Your task to perform on an android device: toggle priority inbox in the gmail app Image 0: 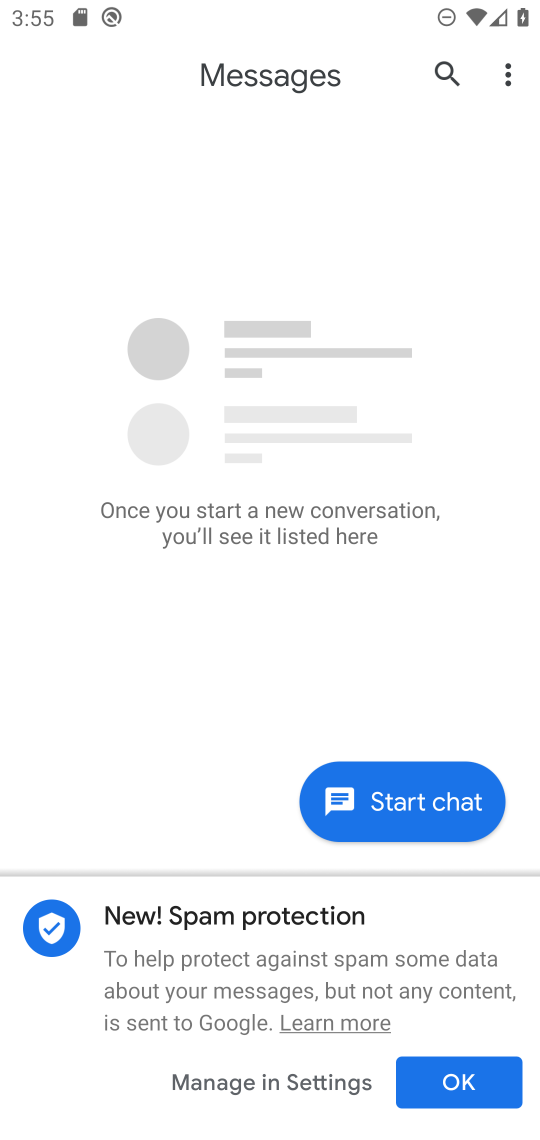
Step 0: press home button
Your task to perform on an android device: toggle priority inbox in the gmail app Image 1: 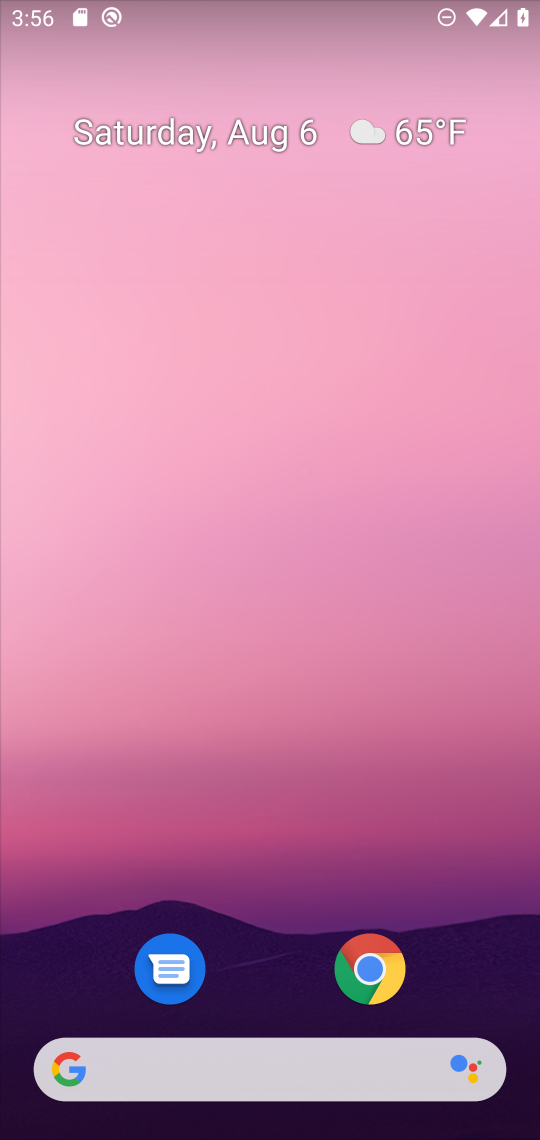
Step 1: press home button
Your task to perform on an android device: toggle priority inbox in the gmail app Image 2: 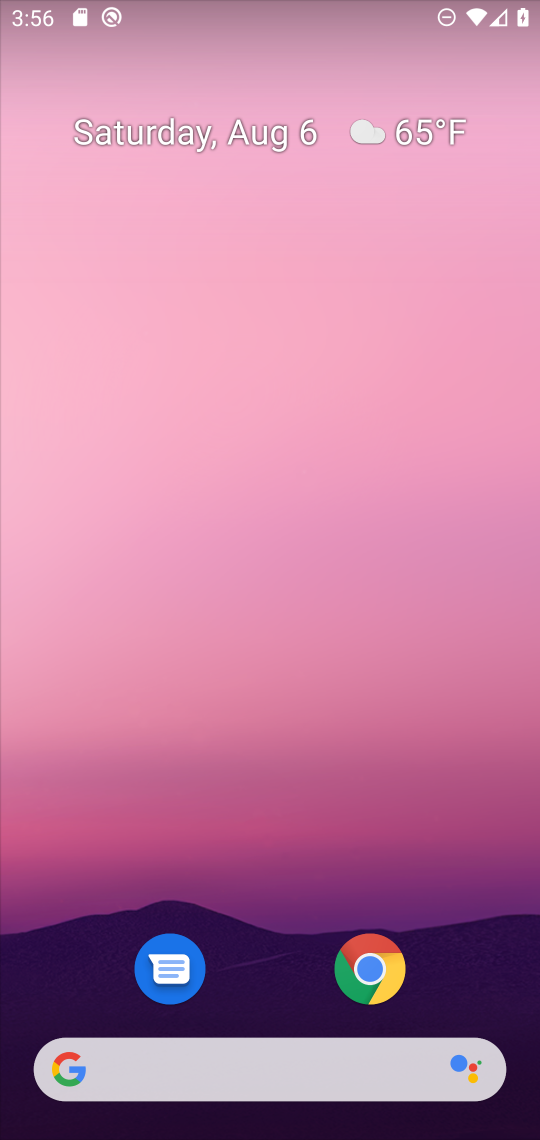
Step 2: drag from (248, 957) to (299, 235)
Your task to perform on an android device: toggle priority inbox in the gmail app Image 3: 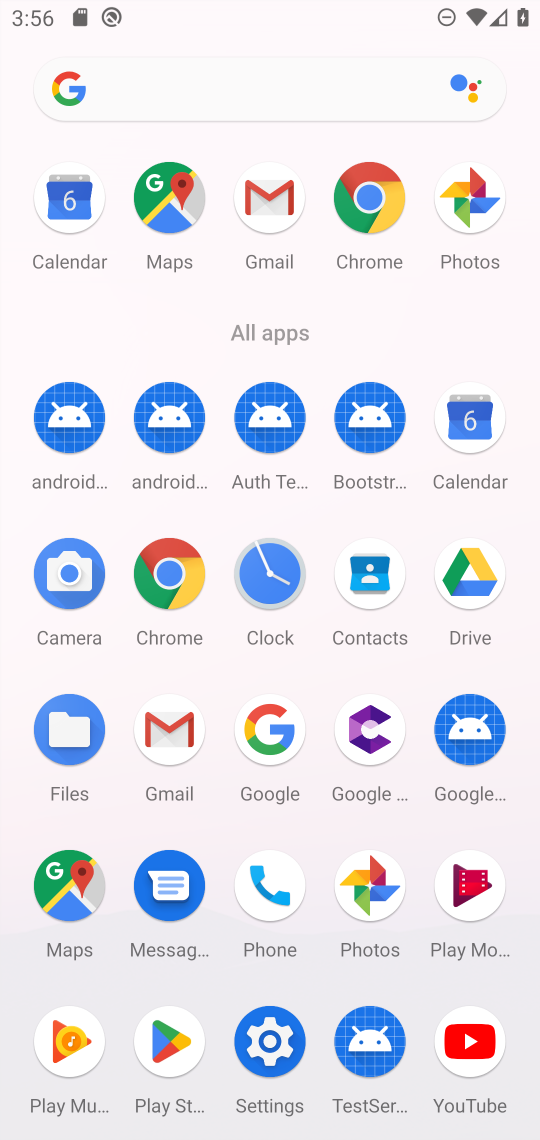
Step 3: click (269, 207)
Your task to perform on an android device: toggle priority inbox in the gmail app Image 4: 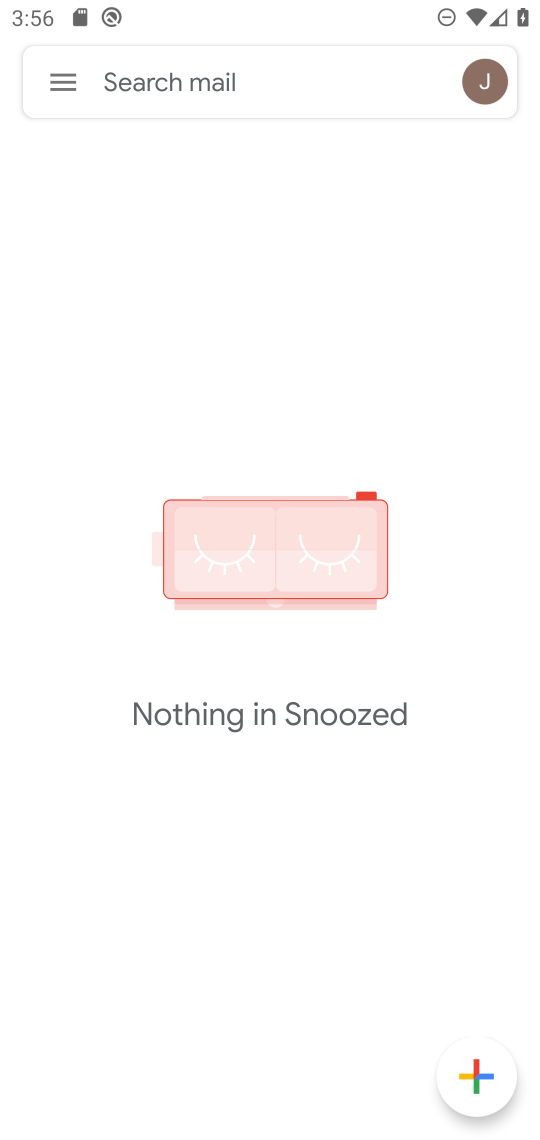
Step 4: click (66, 82)
Your task to perform on an android device: toggle priority inbox in the gmail app Image 5: 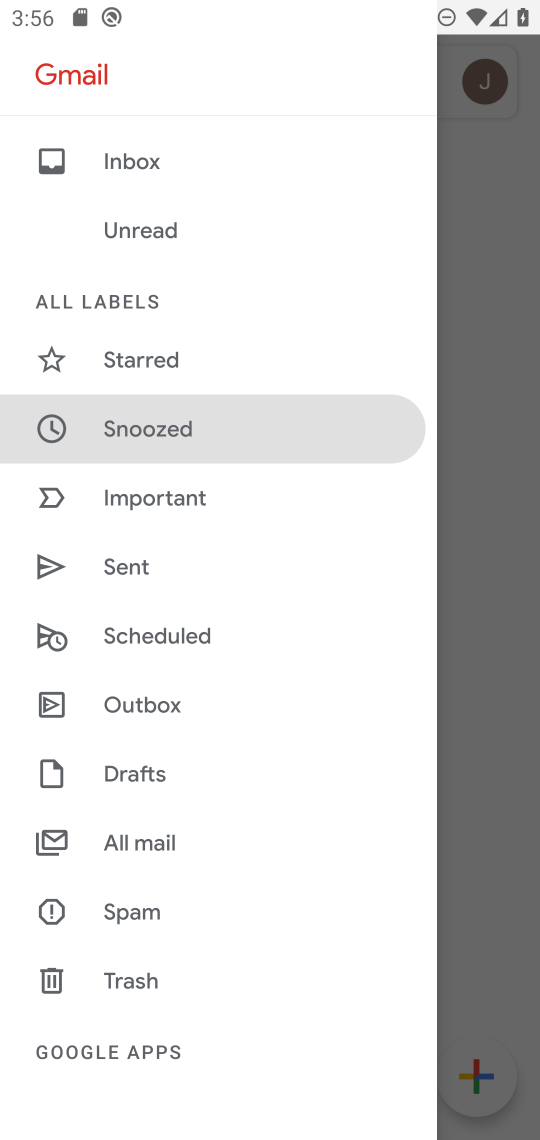
Step 5: drag from (216, 1017) to (224, 478)
Your task to perform on an android device: toggle priority inbox in the gmail app Image 6: 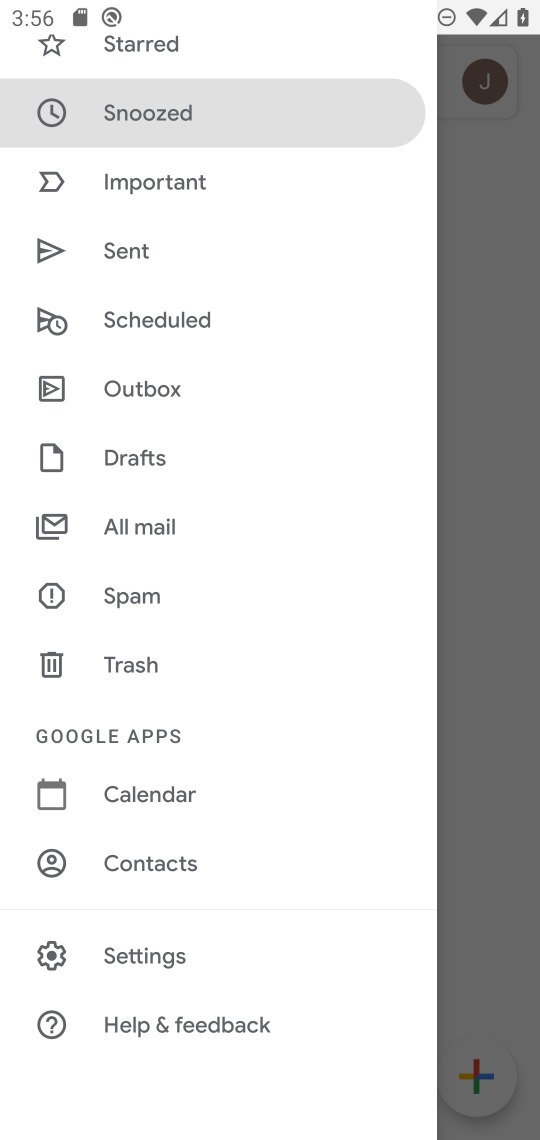
Step 6: click (134, 962)
Your task to perform on an android device: toggle priority inbox in the gmail app Image 7: 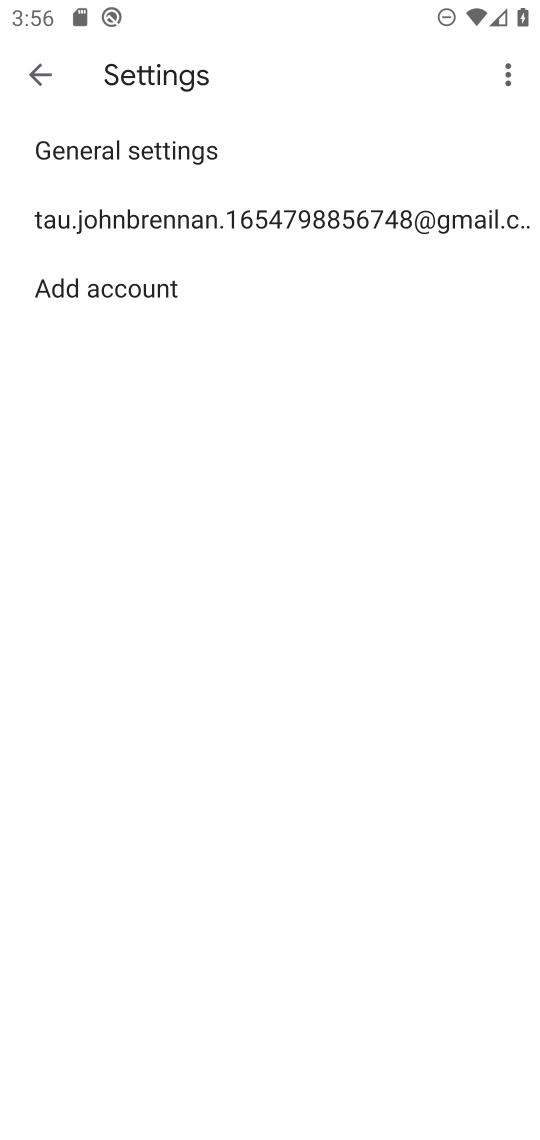
Step 7: click (117, 214)
Your task to perform on an android device: toggle priority inbox in the gmail app Image 8: 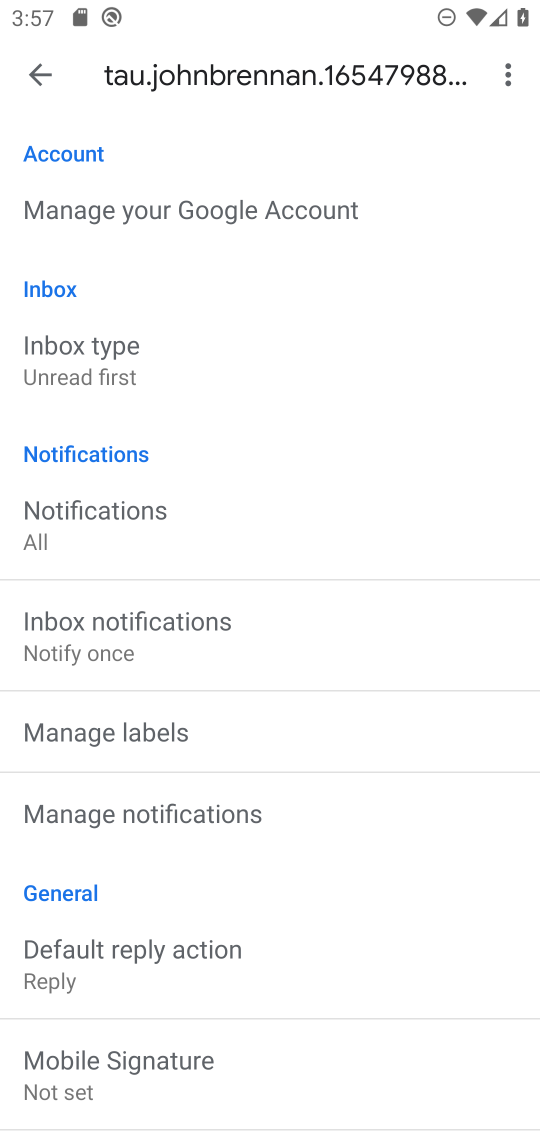
Step 8: click (116, 358)
Your task to perform on an android device: toggle priority inbox in the gmail app Image 9: 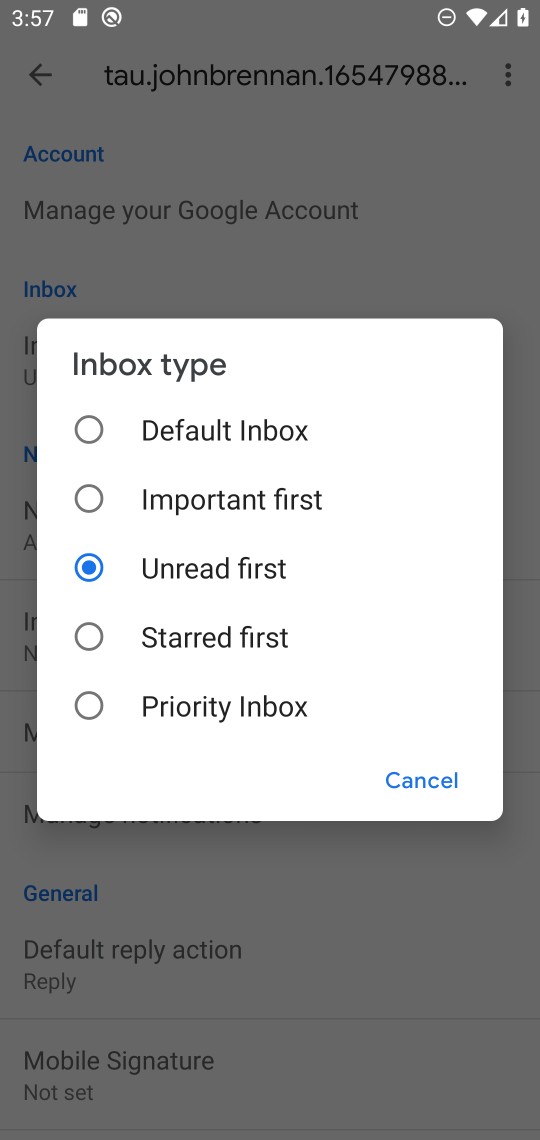
Step 9: click (89, 705)
Your task to perform on an android device: toggle priority inbox in the gmail app Image 10: 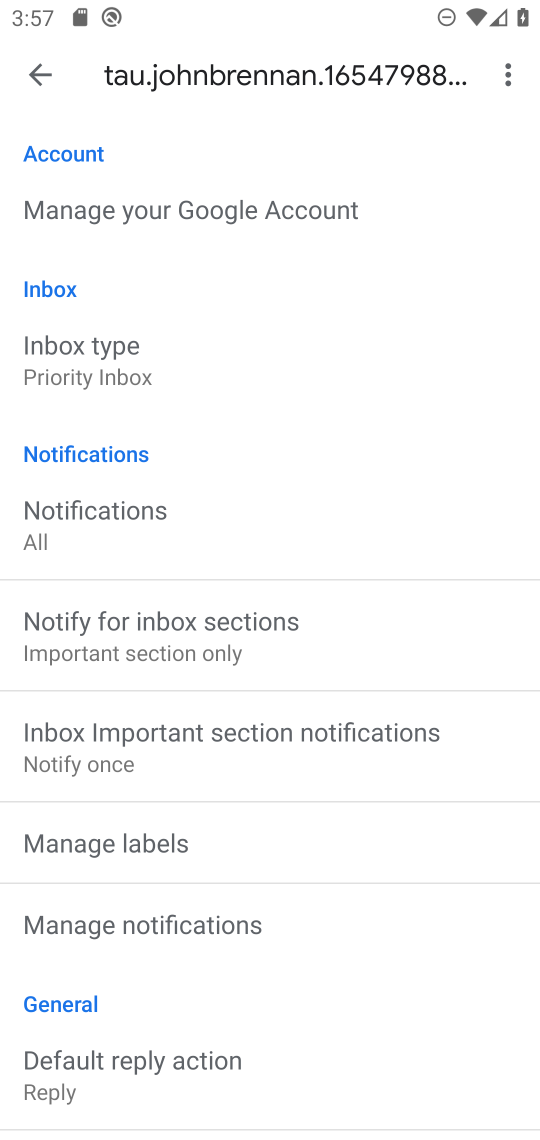
Step 10: task complete